Your task to perform on an android device: What's the weather going to be tomorrow? Image 0: 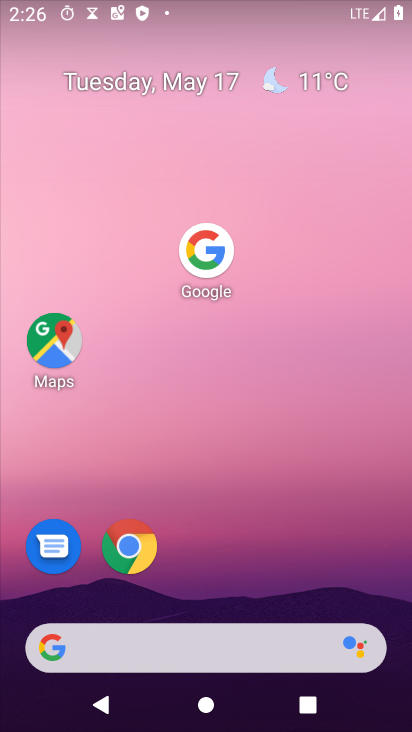
Step 0: press home button
Your task to perform on an android device: What's the weather going to be tomorrow? Image 1: 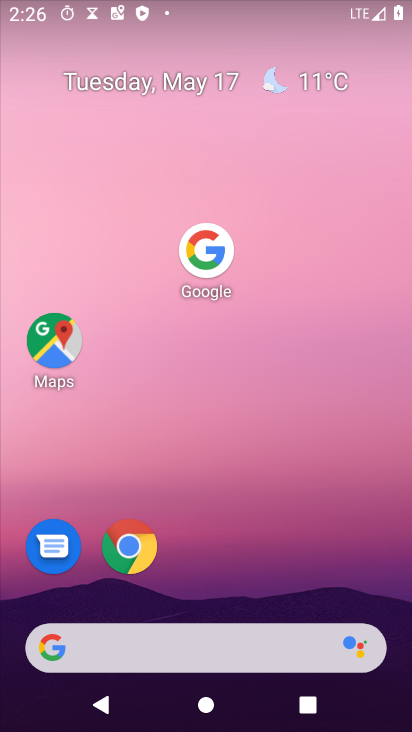
Step 1: click (315, 84)
Your task to perform on an android device: What's the weather going to be tomorrow? Image 2: 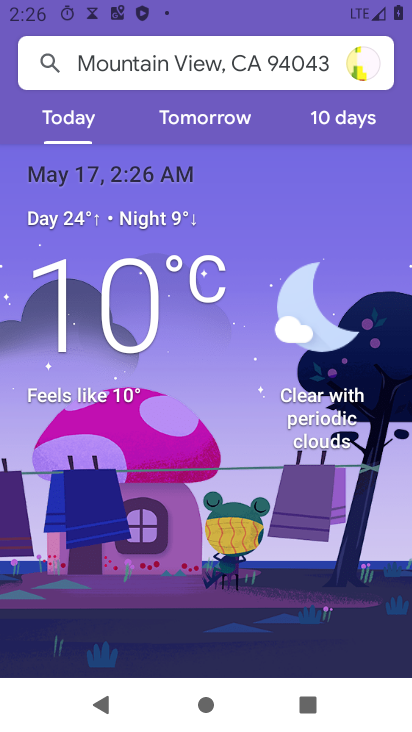
Step 2: click (199, 117)
Your task to perform on an android device: What's the weather going to be tomorrow? Image 3: 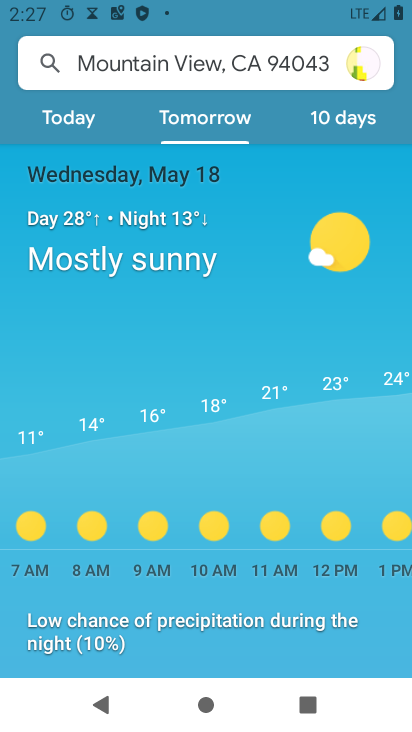
Step 3: task complete